Your task to perform on an android device: turn on sleep mode Image 0: 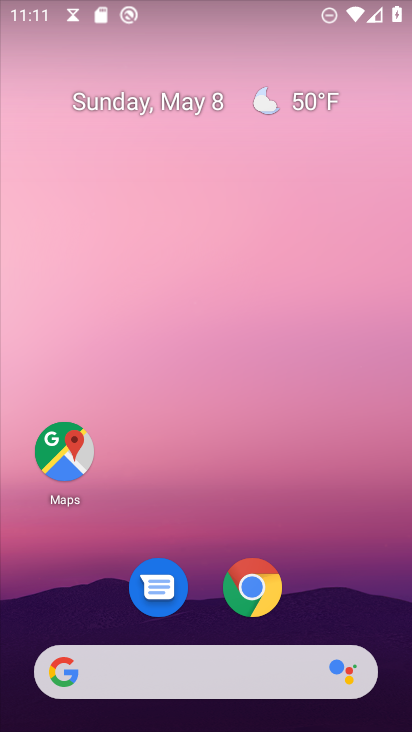
Step 0: drag from (316, 555) to (131, 159)
Your task to perform on an android device: turn on sleep mode Image 1: 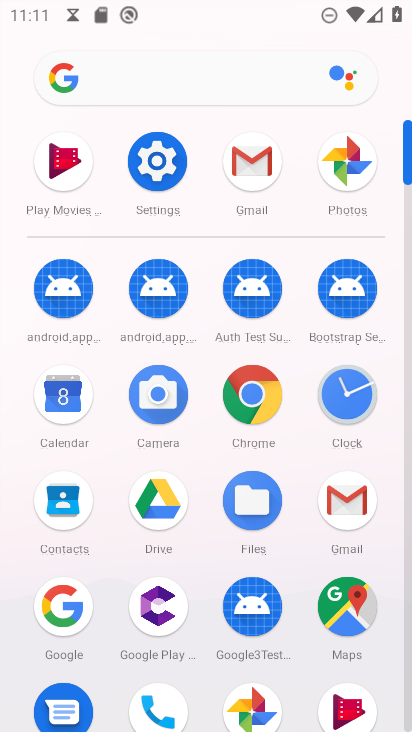
Step 1: click (159, 161)
Your task to perform on an android device: turn on sleep mode Image 2: 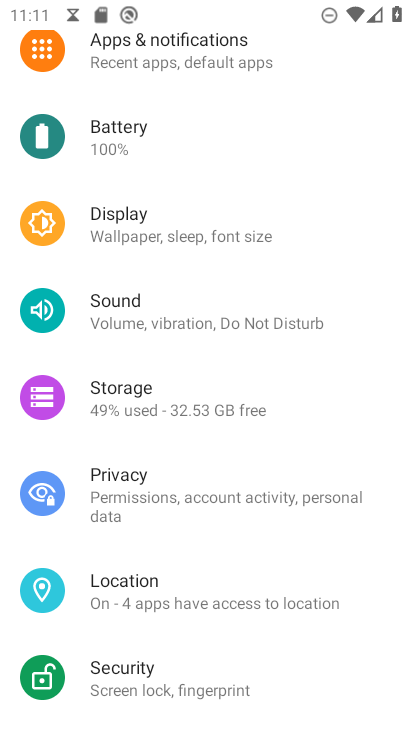
Step 2: click (169, 232)
Your task to perform on an android device: turn on sleep mode Image 3: 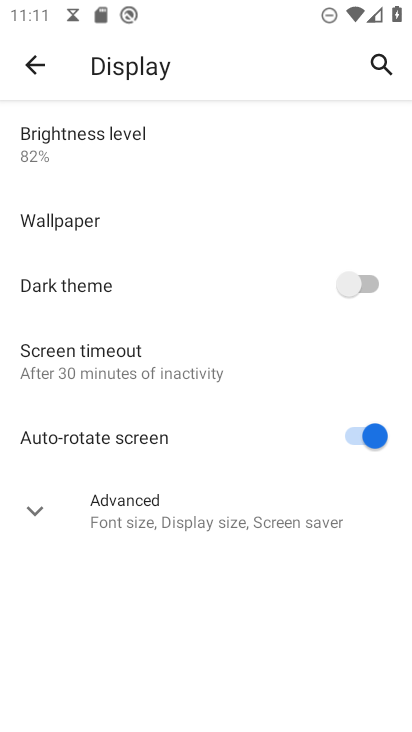
Step 3: click (193, 517)
Your task to perform on an android device: turn on sleep mode Image 4: 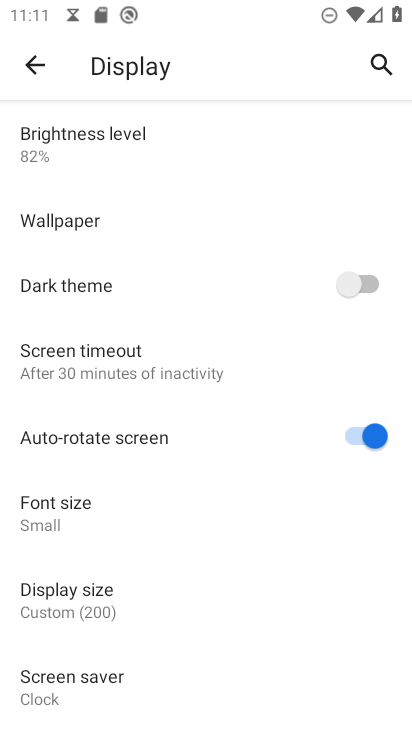
Step 4: task complete